Your task to perform on an android device: change the clock style Image 0: 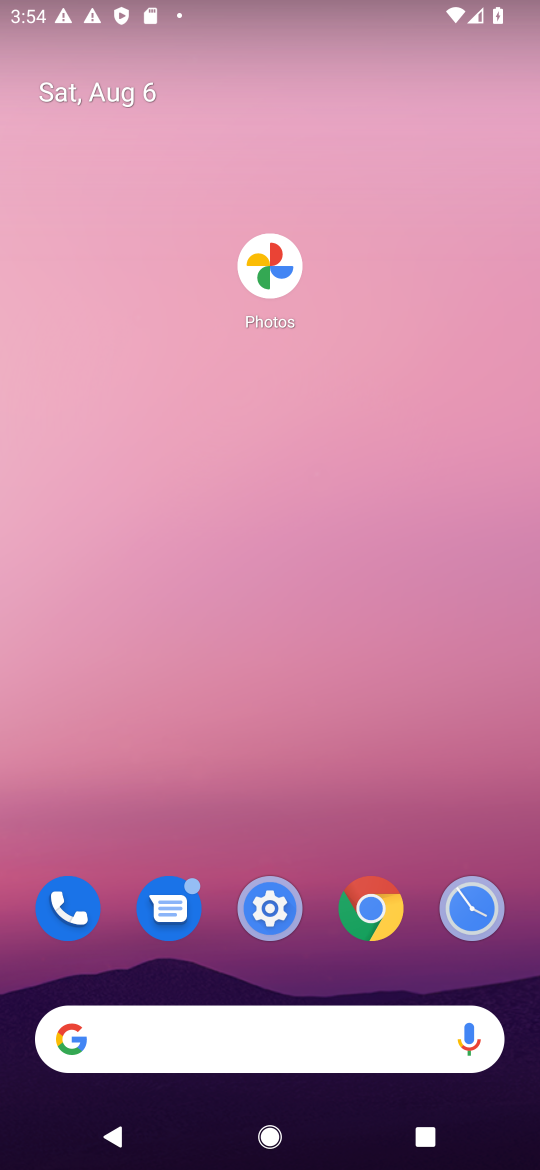
Step 0: drag from (282, 948) to (308, 23)
Your task to perform on an android device: change the clock style Image 1: 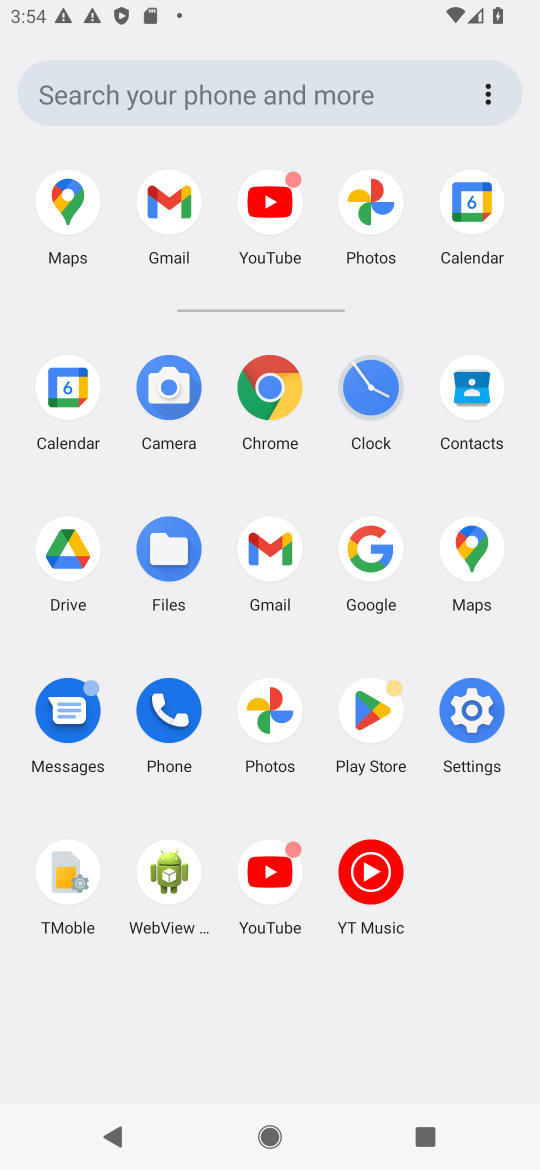
Step 1: click (367, 395)
Your task to perform on an android device: change the clock style Image 2: 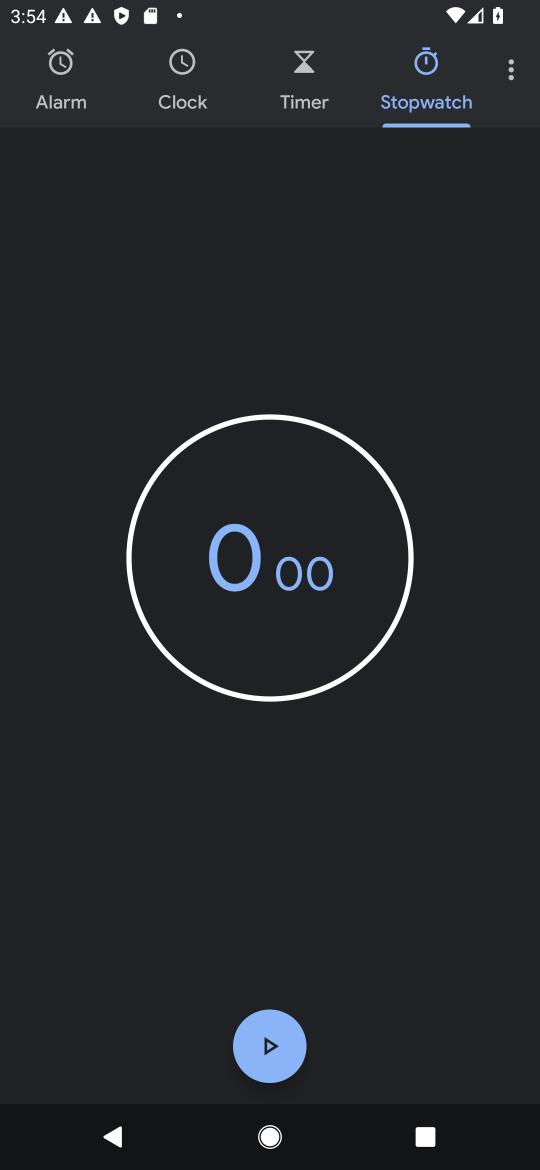
Step 2: click (512, 48)
Your task to perform on an android device: change the clock style Image 3: 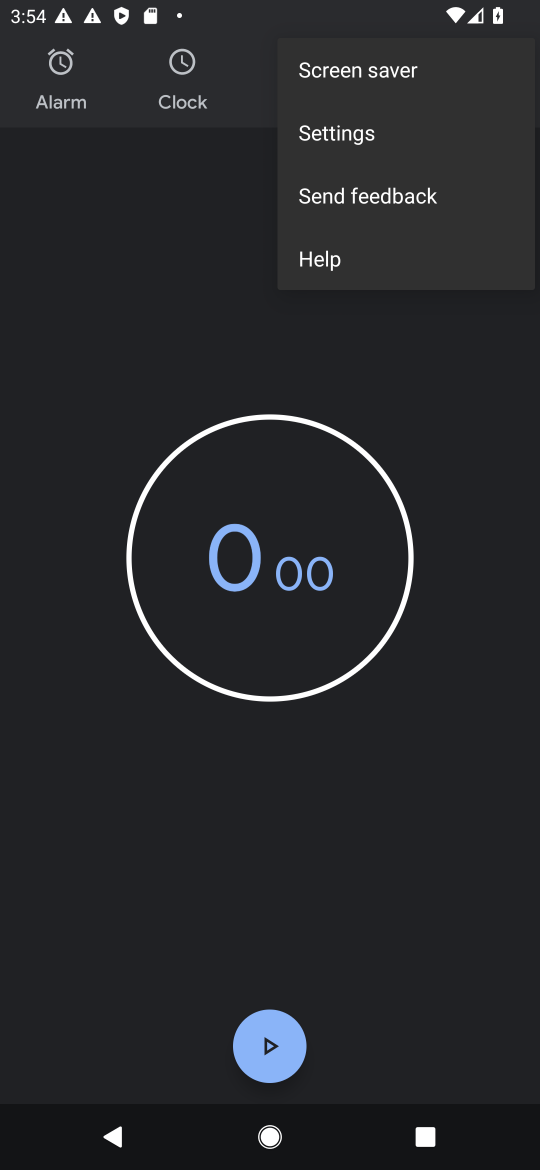
Step 3: click (360, 142)
Your task to perform on an android device: change the clock style Image 4: 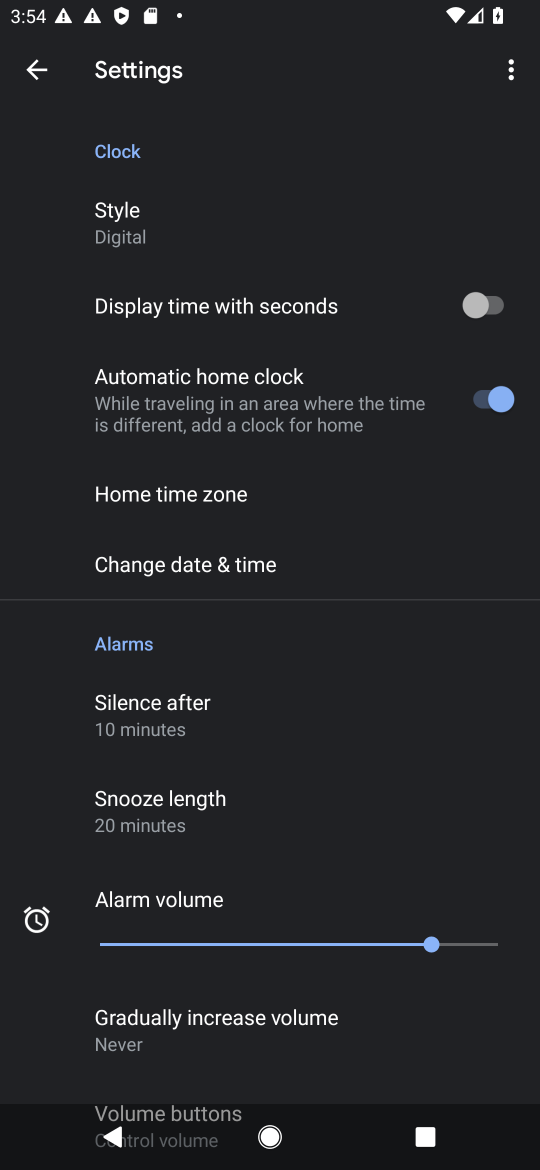
Step 4: click (130, 236)
Your task to perform on an android device: change the clock style Image 5: 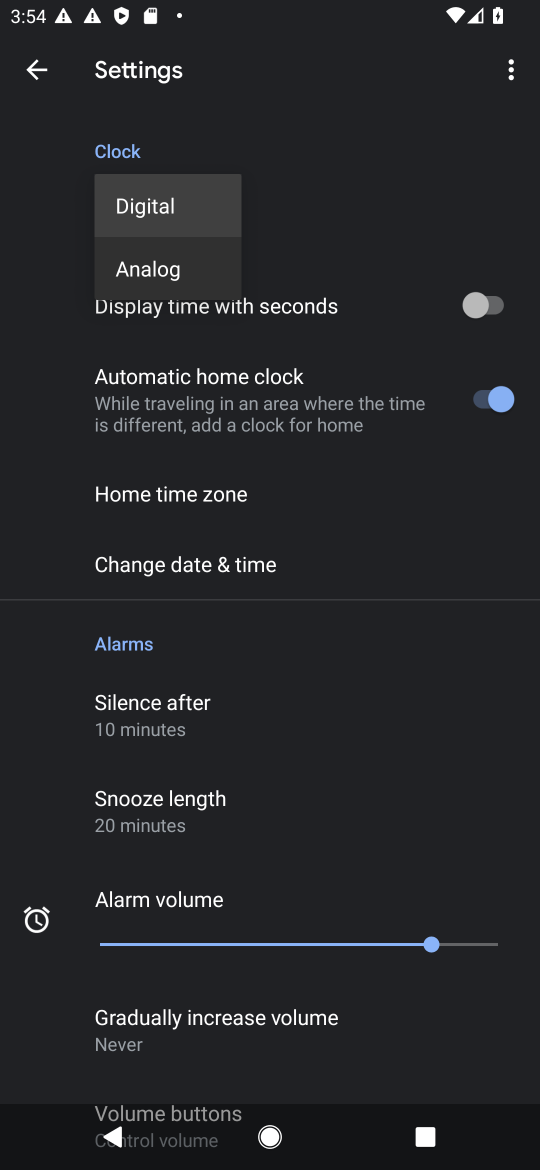
Step 5: click (175, 277)
Your task to perform on an android device: change the clock style Image 6: 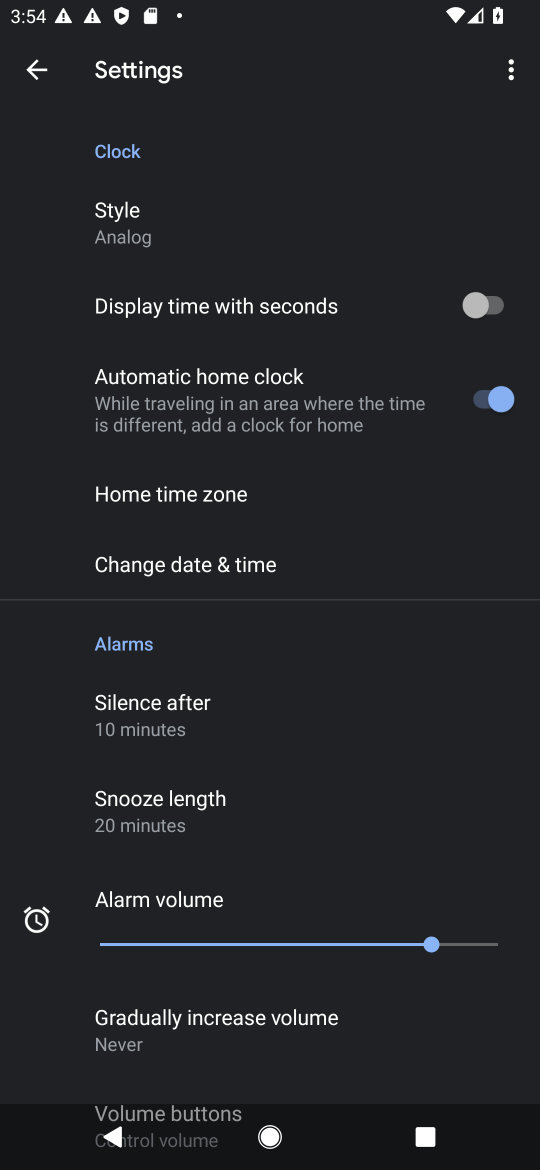
Step 6: task complete